Your task to perform on an android device: Go to display settings Image 0: 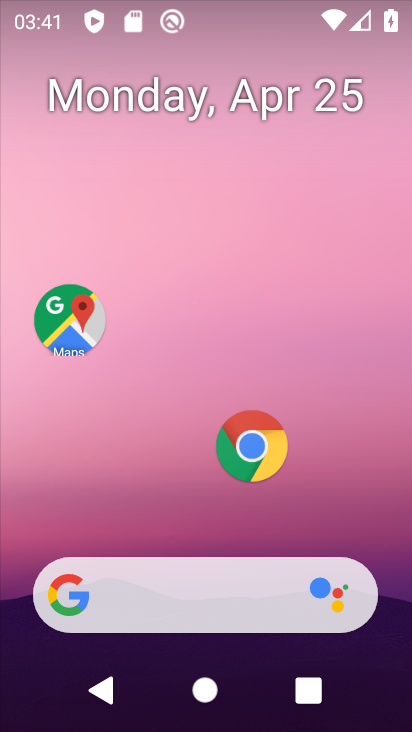
Step 0: drag from (181, 495) to (312, 11)
Your task to perform on an android device: Go to display settings Image 1: 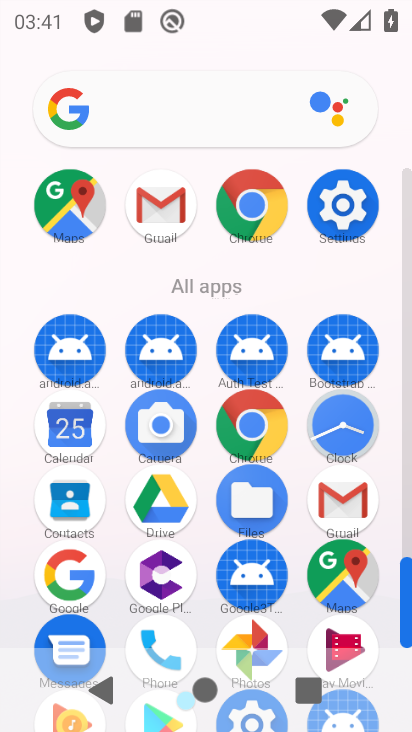
Step 1: click (345, 231)
Your task to perform on an android device: Go to display settings Image 2: 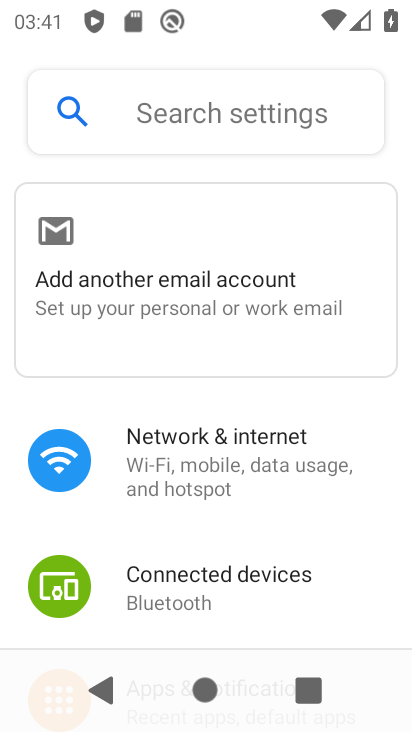
Step 2: drag from (91, 553) to (205, 71)
Your task to perform on an android device: Go to display settings Image 3: 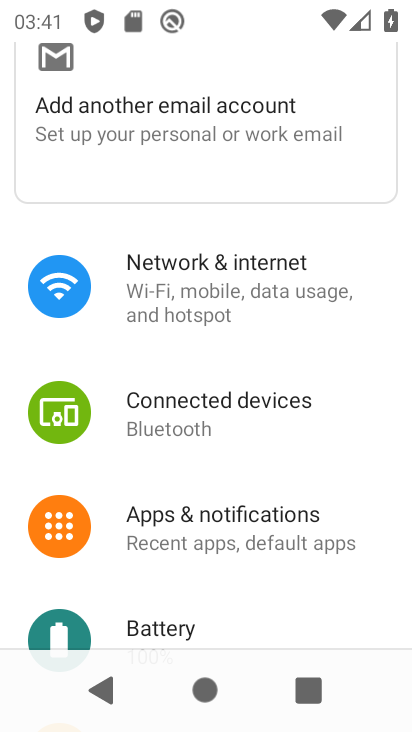
Step 3: drag from (89, 601) to (195, 186)
Your task to perform on an android device: Go to display settings Image 4: 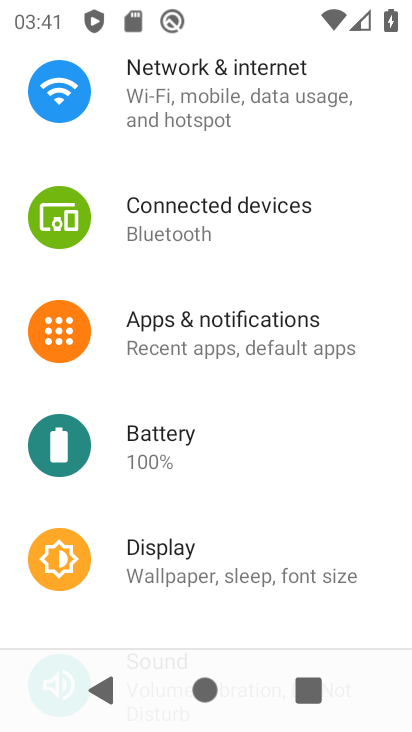
Step 4: click (215, 576)
Your task to perform on an android device: Go to display settings Image 5: 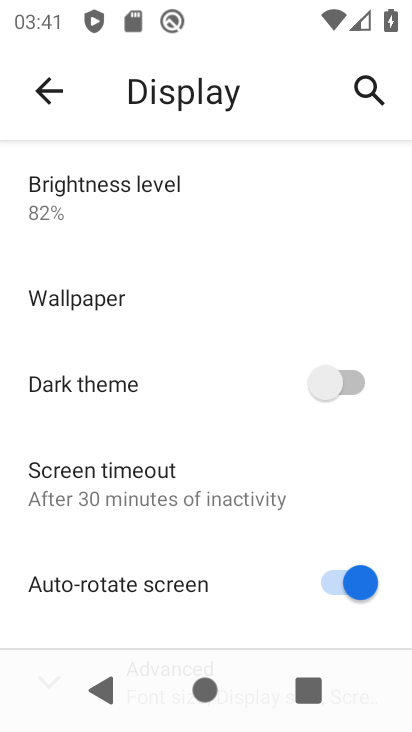
Step 5: task complete